Your task to perform on an android device: Open the calendar app, open the side menu, and click the "Day" option Image 0: 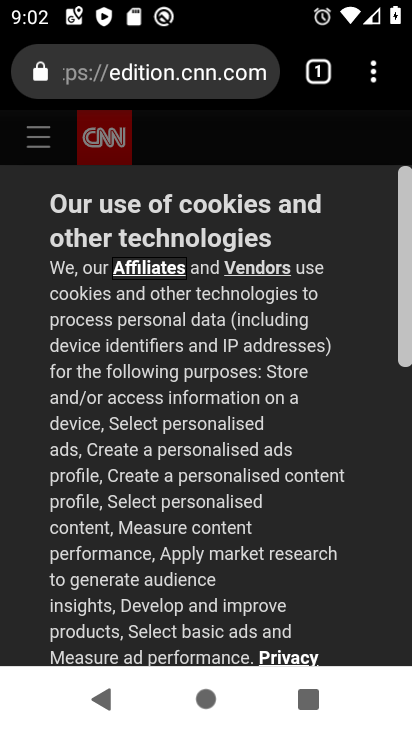
Step 0: press home button
Your task to perform on an android device: Open the calendar app, open the side menu, and click the "Day" option Image 1: 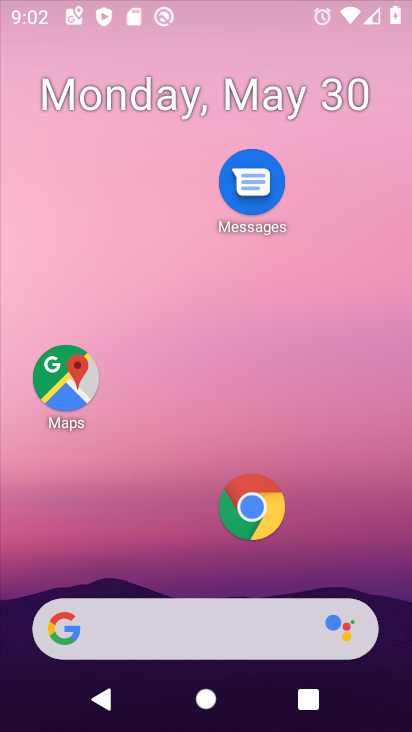
Step 1: click (228, 60)
Your task to perform on an android device: Open the calendar app, open the side menu, and click the "Day" option Image 2: 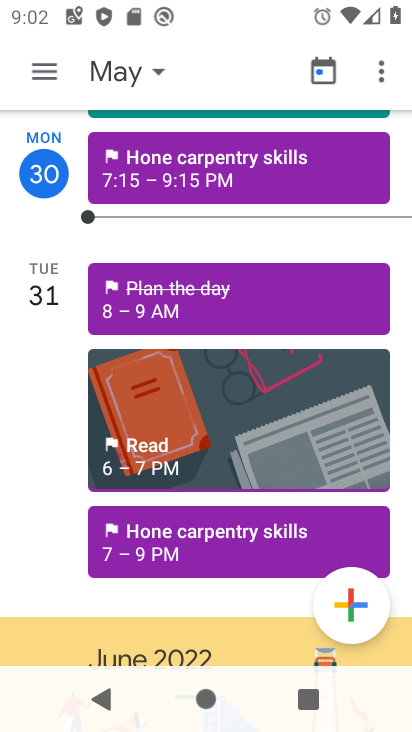
Step 2: press home button
Your task to perform on an android device: Open the calendar app, open the side menu, and click the "Day" option Image 3: 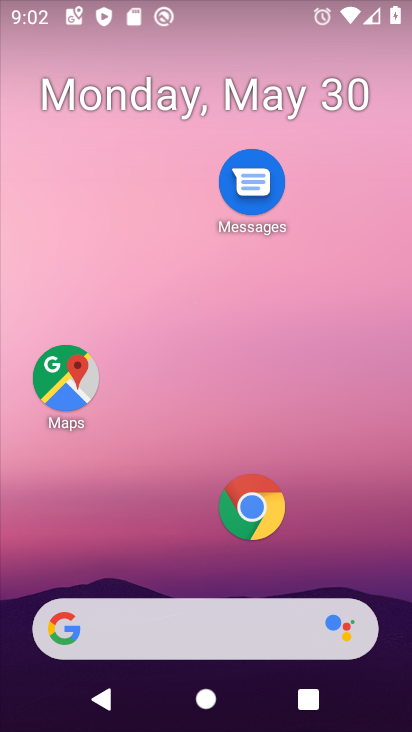
Step 3: drag from (189, 572) to (176, 125)
Your task to perform on an android device: Open the calendar app, open the side menu, and click the "Day" option Image 4: 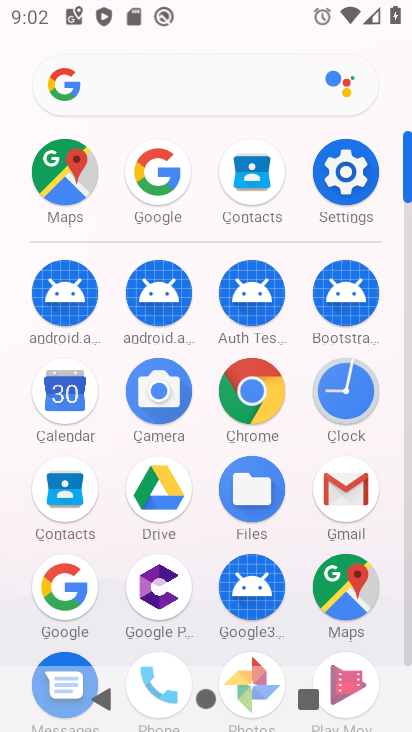
Step 4: press back button
Your task to perform on an android device: Open the calendar app, open the side menu, and click the "Day" option Image 5: 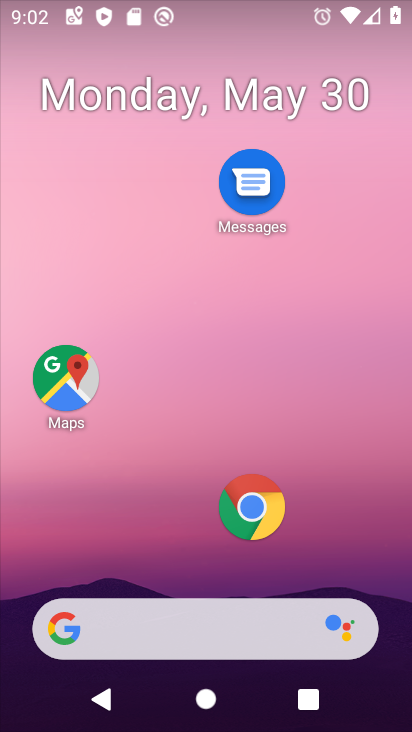
Step 5: drag from (192, 570) to (235, 66)
Your task to perform on an android device: Open the calendar app, open the side menu, and click the "Day" option Image 6: 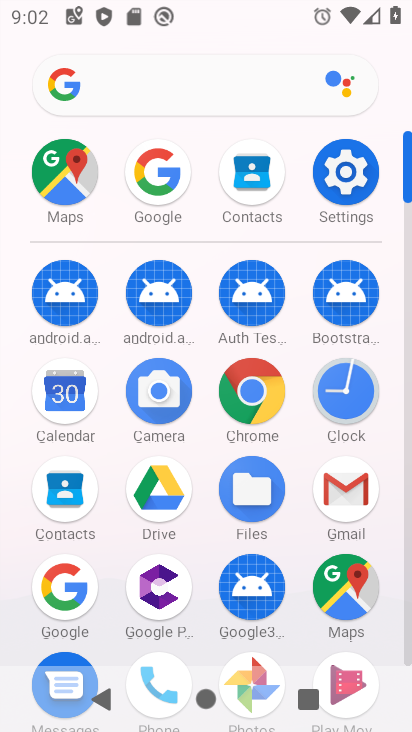
Step 6: click (58, 414)
Your task to perform on an android device: Open the calendar app, open the side menu, and click the "Day" option Image 7: 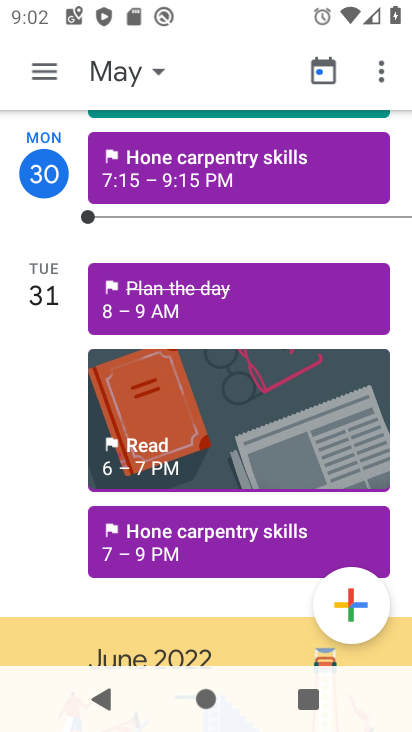
Step 7: click (26, 62)
Your task to perform on an android device: Open the calendar app, open the side menu, and click the "Day" option Image 8: 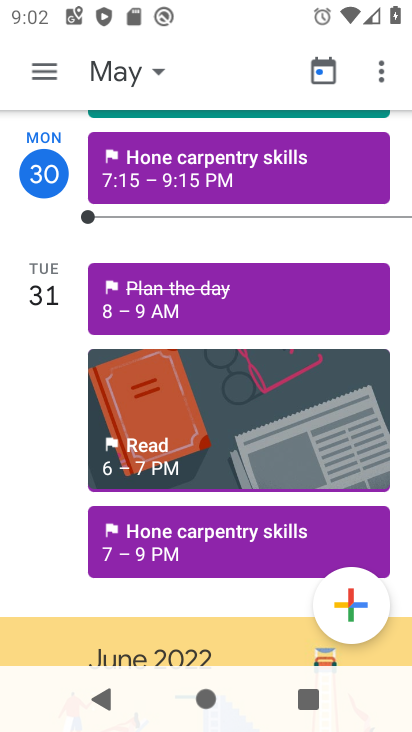
Step 8: click (47, 80)
Your task to perform on an android device: Open the calendar app, open the side menu, and click the "Day" option Image 9: 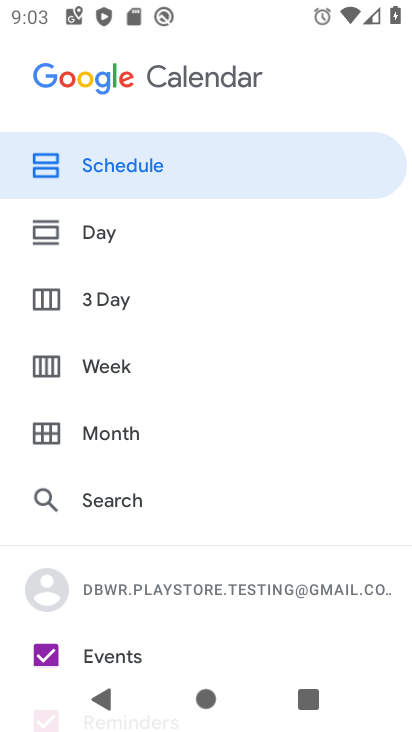
Step 9: click (123, 241)
Your task to perform on an android device: Open the calendar app, open the side menu, and click the "Day" option Image 10: 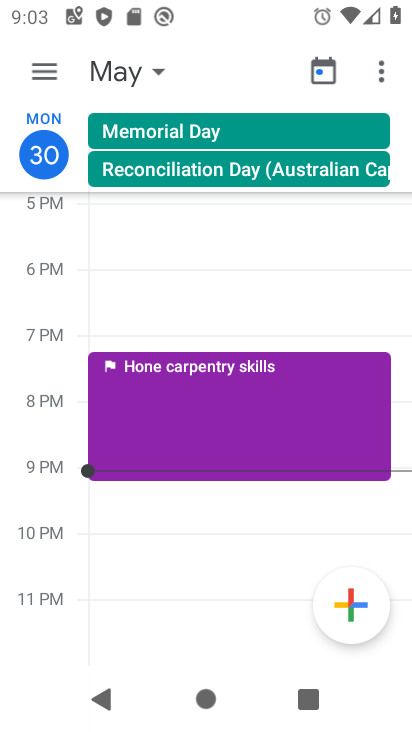
Step 10: task complete